Your task to perform on an android device: Open the calendar app, open the side menu, and click the "Day" option Image 0: 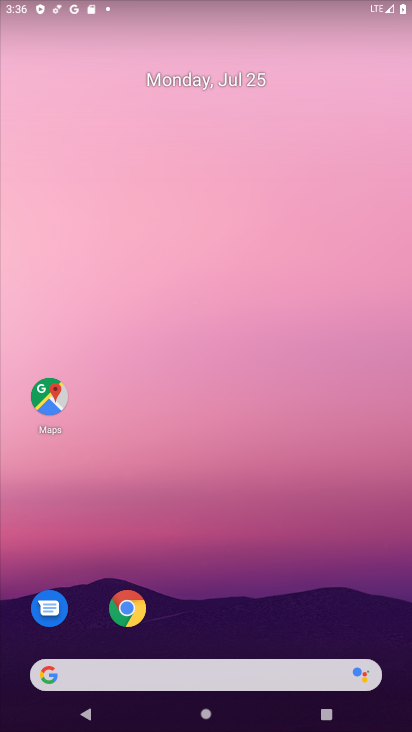
Step 0: drag from (57, 528) to (261, 220)
Your task to perform on an android device: Open the calendar app, open the side menu, and click the "Day" option Image 1: 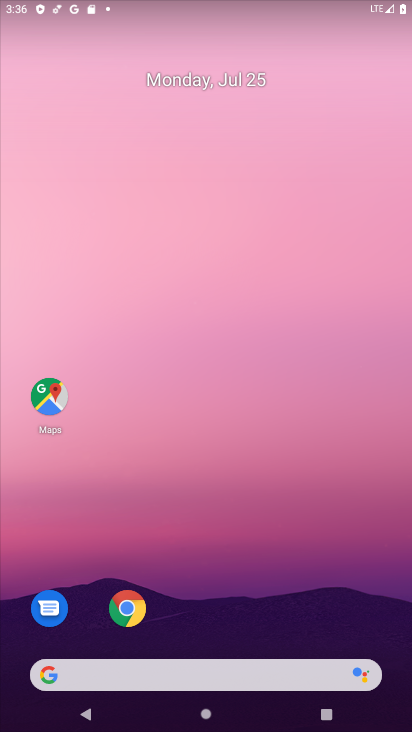
Step 1: drag from (84, 548) to (335, 148)
Your task to perform on an android device: Open the calendar app, open the side menu, and click the "Day" option Image 2: 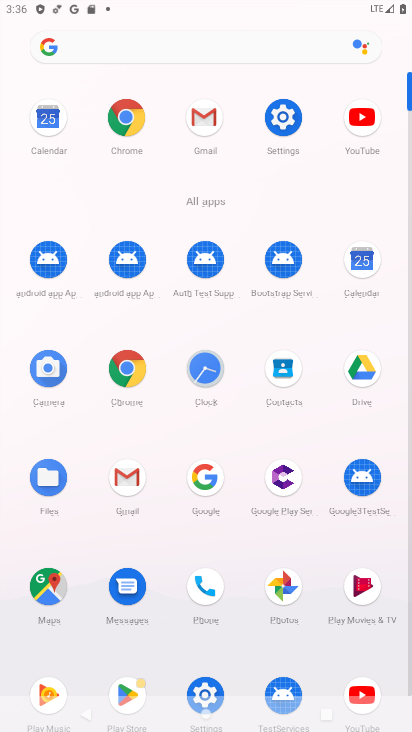
Step 2: click (365, 268)
Your task to perform on an android device: Open the calendar app, open the side menu, and click the "Day" option Image 3: 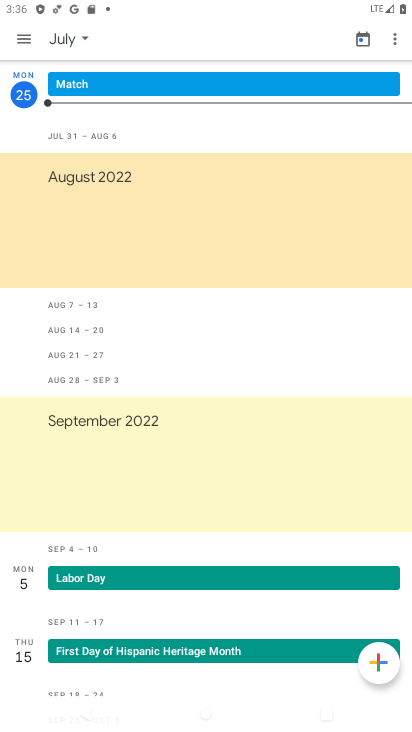
Step 3: click (12, 35)
Your task to perform on an android device: Open the calendar app, open the side menu, and click the "Day" option Image 4: 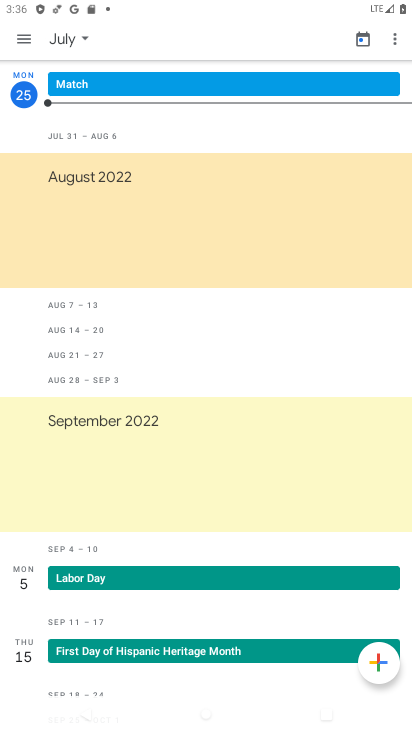
Step 4: click (25, 40)
Your task to perform on an android device: Open the calendar app, open the side menu, and click the "Day" option Image 5: 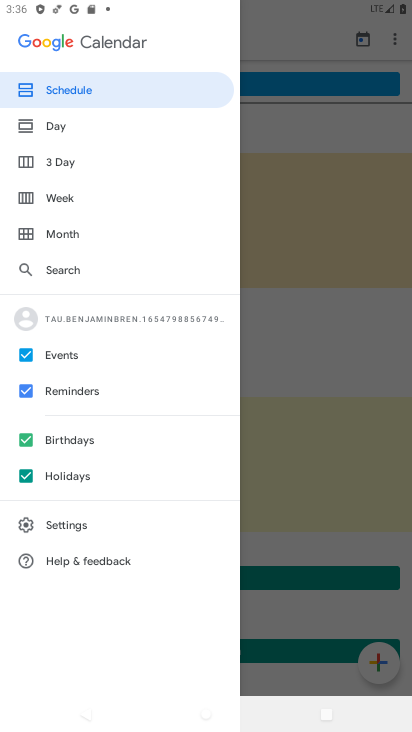
Step 5: click (50, 124)
Your task to perform on an android device: Open the calendar app, open the side menu, and click the "Day" option Image 6: 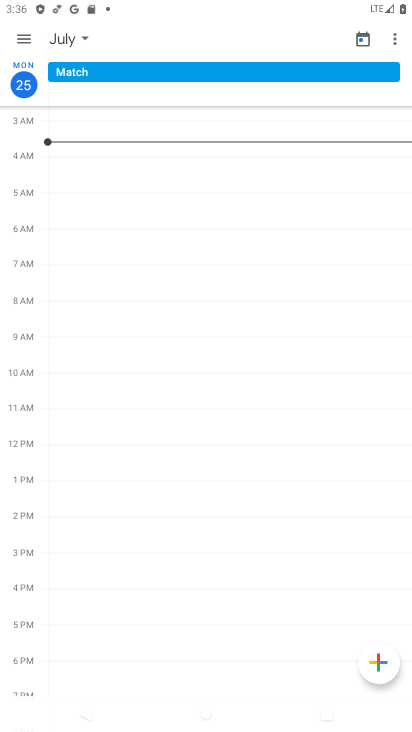
Step 6: task complete